Your task to perform on an android device: set an alarm Image 0: 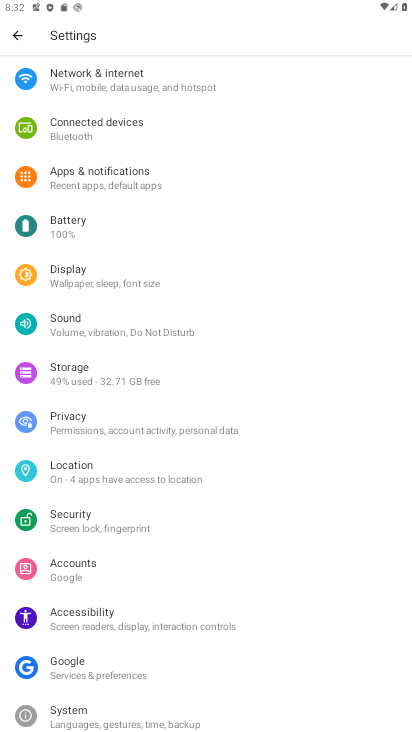
Step 0: press home button
Your task to perform on an android device: set an alarm Image 1: 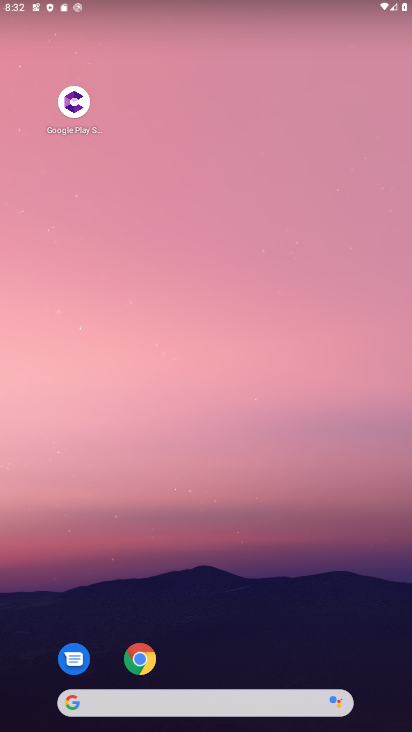
Step 1: drag from (246, 498) to (245, 64)
Your task to perform on an android device: set an alarm Image 2: 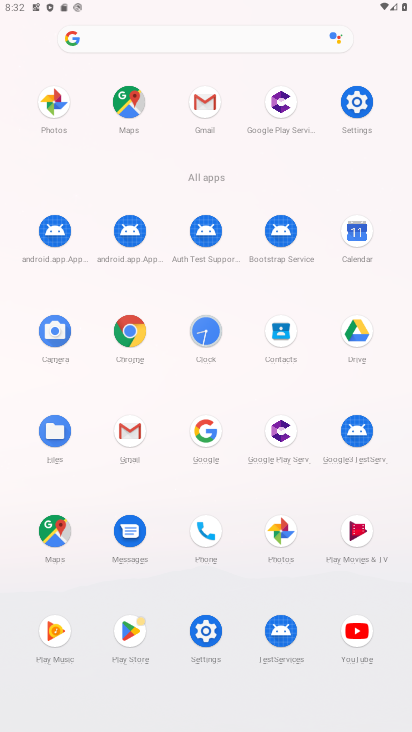
Step 2: click (205, 326)
Your task to perform on an android device: set an alarm Image 3: 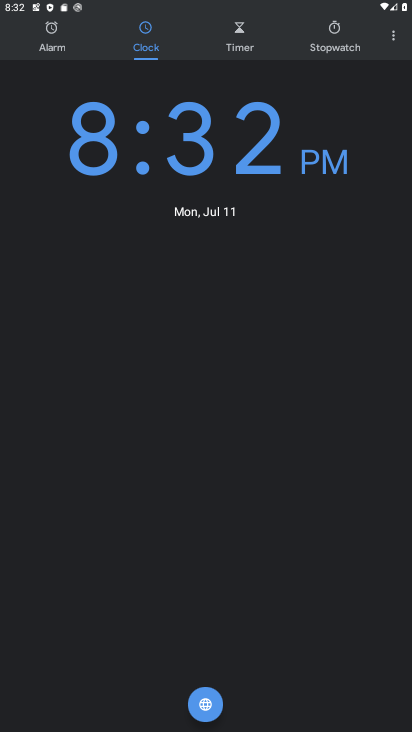
Step 3: click (54, 37)
Your task to perform on an android device: set an alarm Image 4: 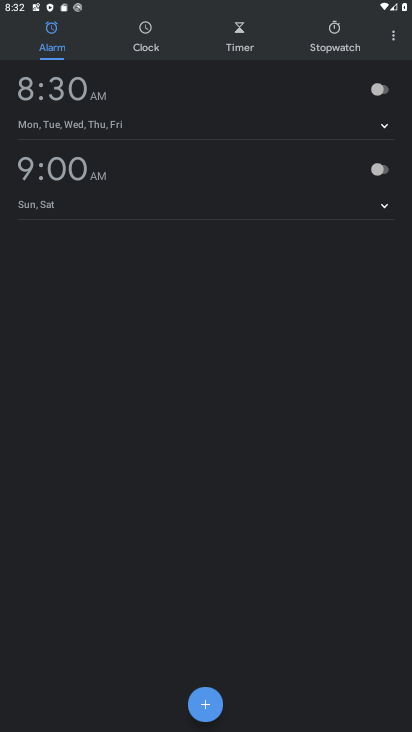
Step 4: click (206, 707)
Your task to perform on an android device: set an alarm Image 5: 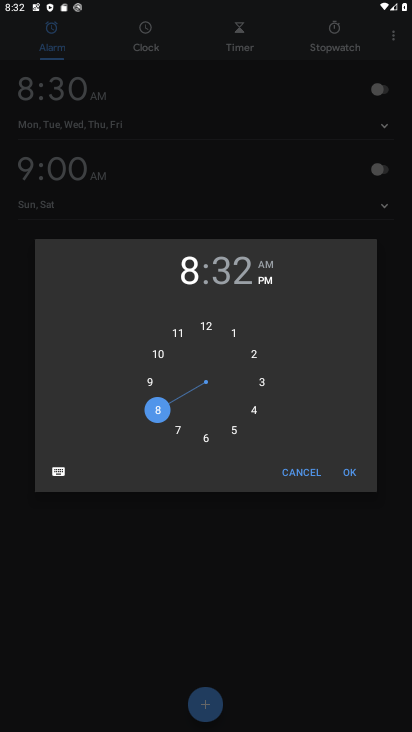
Step 5: click (351, 475)
Your task to perform on an android device: set an alarm Image 6: 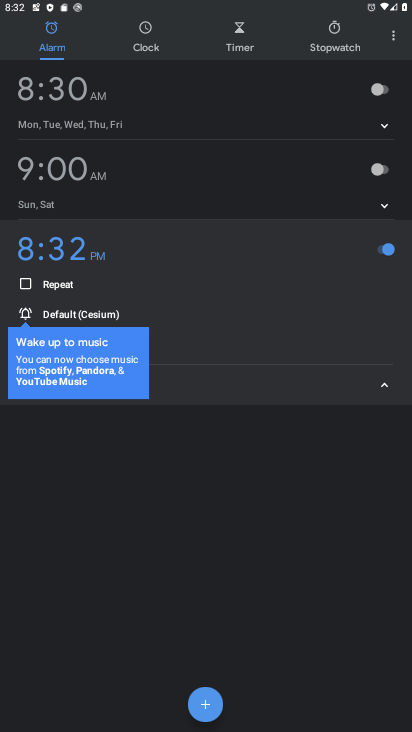
Step 6: task complete